Your task to perform on an android device: Search for a 36" x 48" whiteboard on Home Depot Image 0: 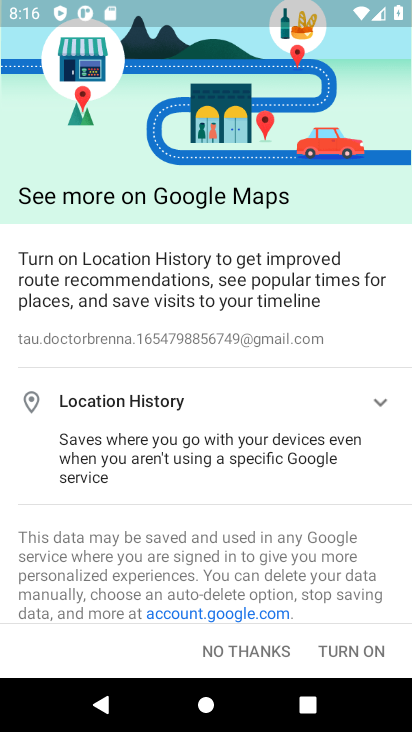
Step 0: press home button
Your task to perform on an android device: Search for a 36" x 48" whiteboard on Home Depot Image 1: 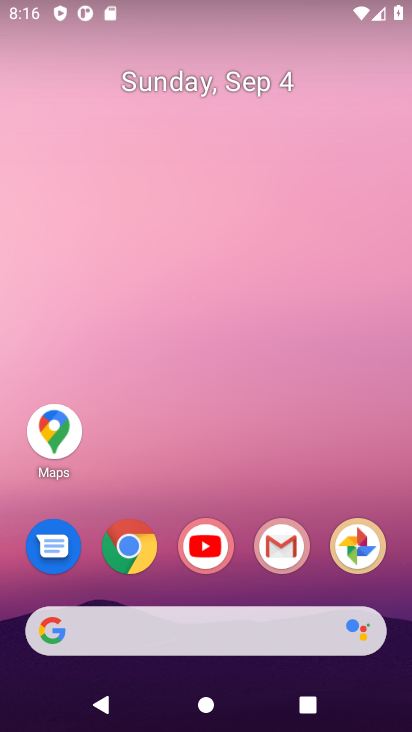
Step 1: click (136, 535)
Your task to perform on an android device: Search for a 36" x 48" whiteboard on Home Depot Image 2: 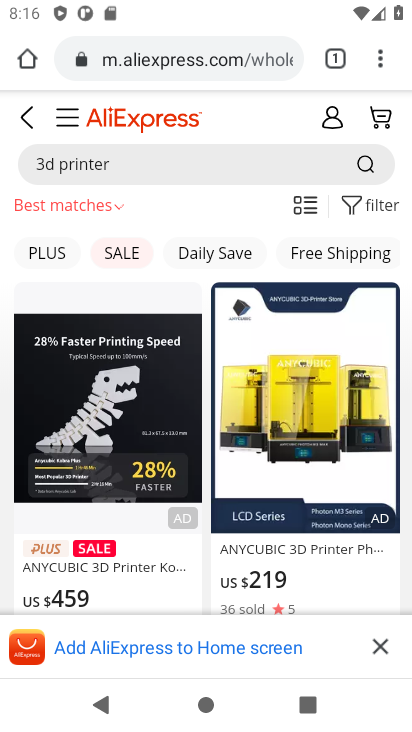
Step 2: click (211, 68)
Your task to perform on an android device: Search for a 36" x 48" whiteboard on Home Depot Image 3: 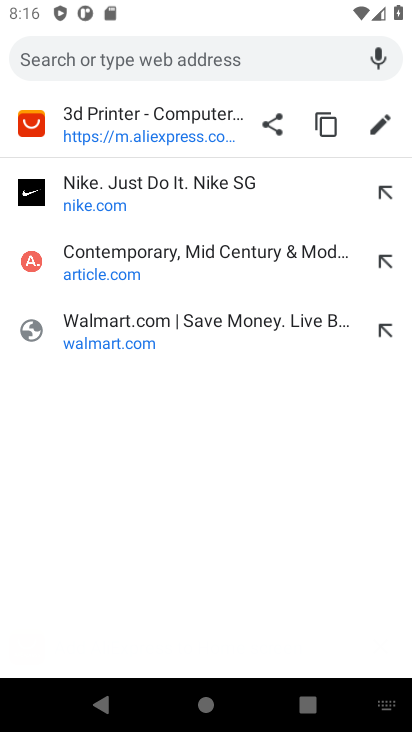
Step 3: type "Home Depot"
Your task to perform on an android device: Search for a 36" x 48" whiteboard on Home Depot Image 4: 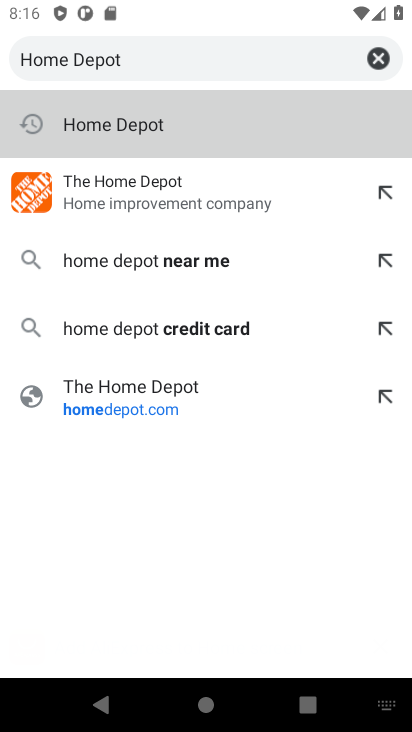
Step 4: click (136, 137)
Your task to perform on an android device: Search for a 36" x 48" whiteboard on Home Depot Image 5: 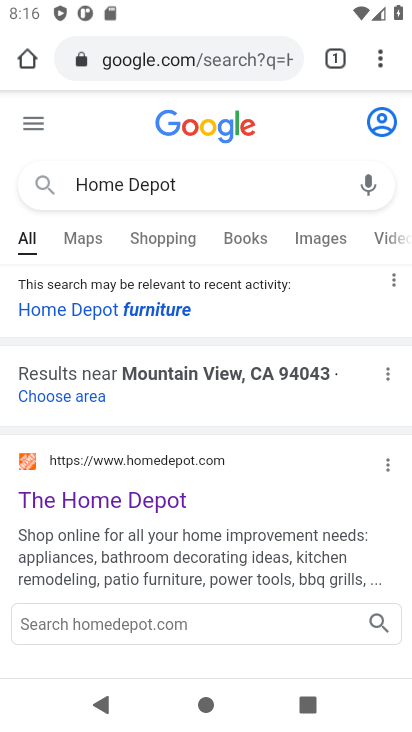
Step 5: click (72, 508)
Your task to perform on an android device: Search for a 36" x 48" whiteboard on Home Depot Image 6: 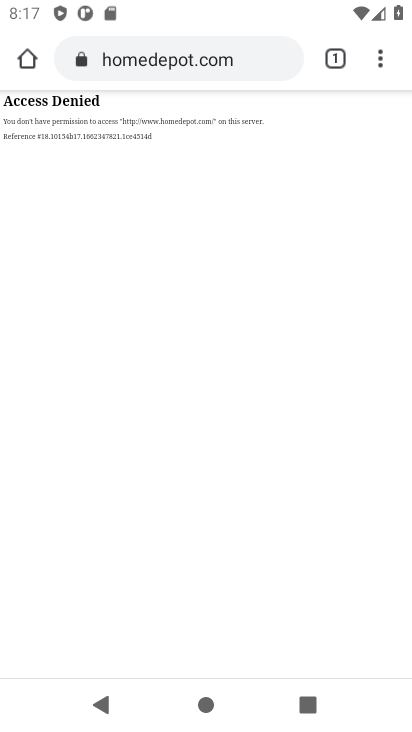
Step 6: task complete